Your task to perform on an android device: Set the phone to "Do not disturb". Image 0: 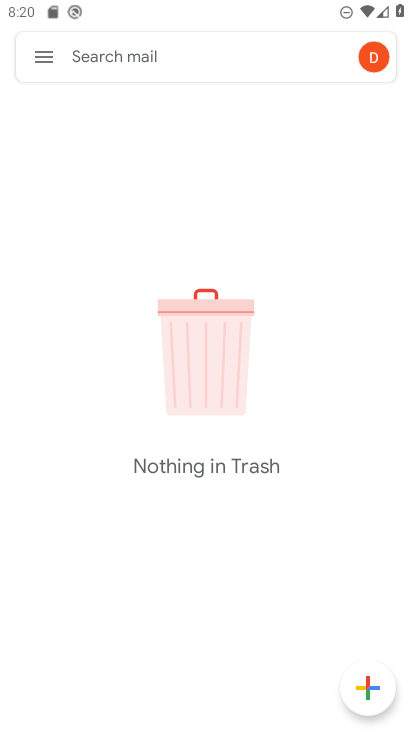
Step 0: press home button
Your task to perform on an android device: Set the phone to "Do not disturb". Image 1: 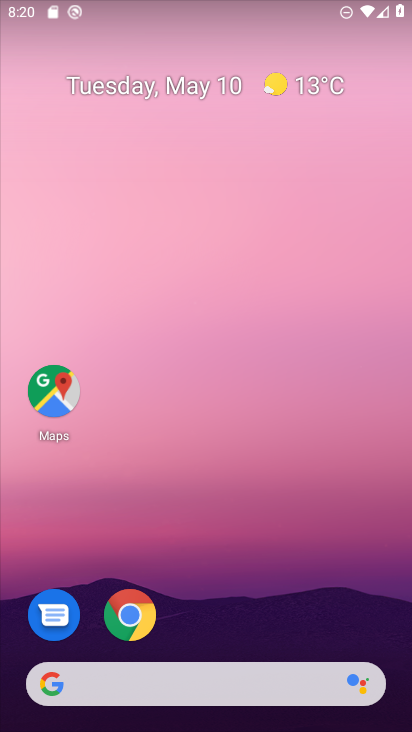
Step 1: drag from (215, 604) to (178, 15)
Your task to perform on an android device: Set the phone to "Do not disturb". Image 2: 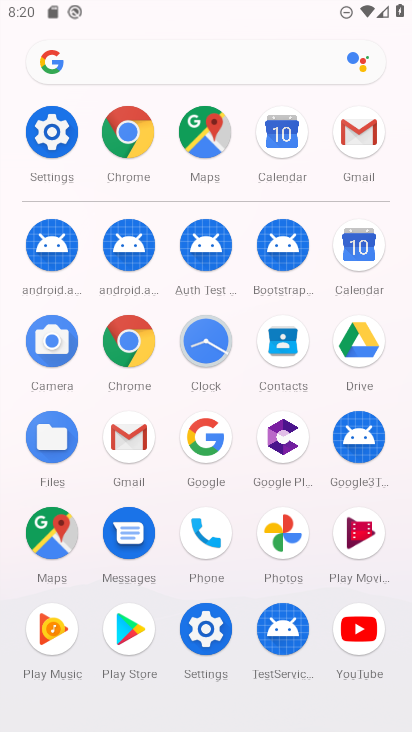
Step 2: click (58, 137)
Your task to perform on an android device: Set the phone to "Do not disturb". Image 3: 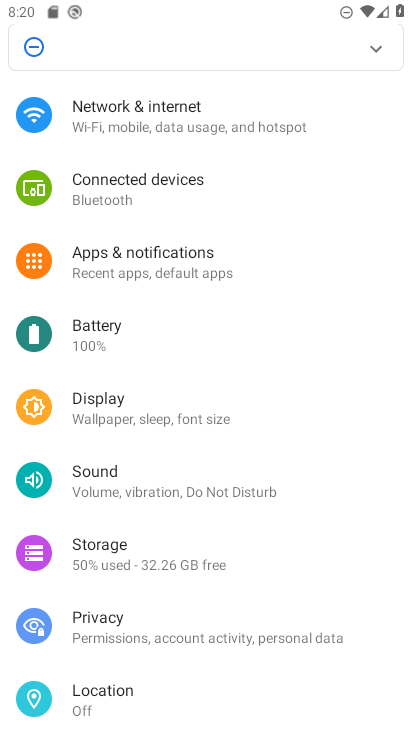
Step 3: click (96, 486)
Your task to perform on an android device: Set the phone to "Do not disturb". Image 4: 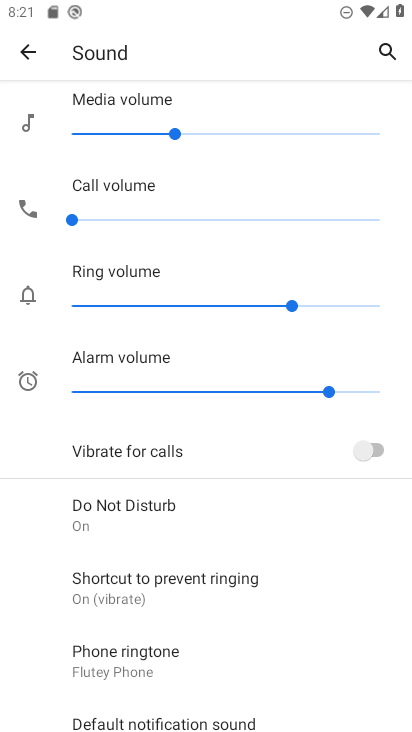
Step 4: click (130, 512)
Your task to perform on an android device: Set the phone to "Do not disturb". Image 5: 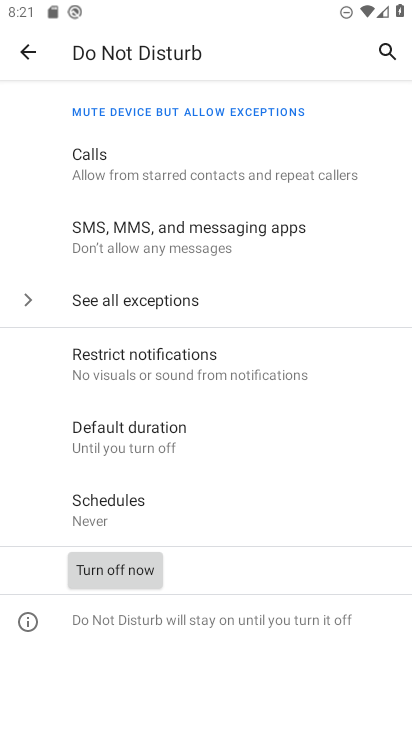
Step 5: task complete